Your task to perform on an android device: change the clock display to digital Image 0: 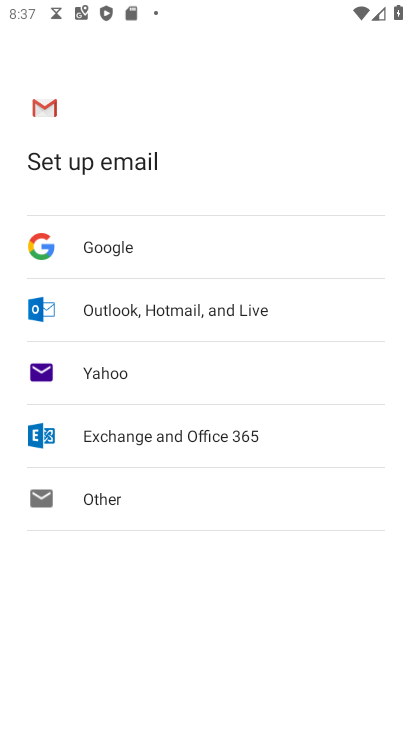
Step 0: press home button
Your task to perform on an android device: change the clock display to digital Image 1: 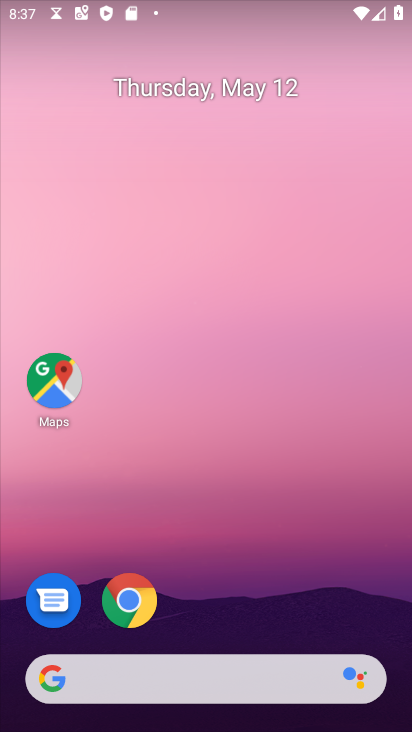
Step 1: drag from (252, 602) to (226, 174)
Your task to perform on an android device: change the clock display to digital Image 2: 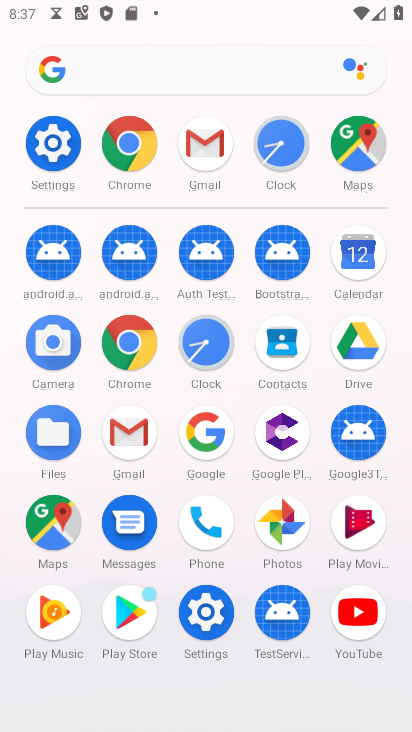
Step 2: click (280, 162)
Your task to perform on an android device: change the clock display to digital Image 3: 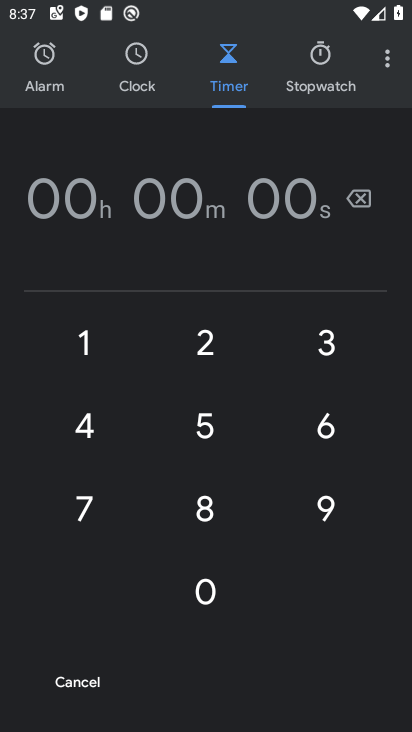
Step 3: click (391, 60)
Your task to perform on an android device: change the clock display to digital Image 4: 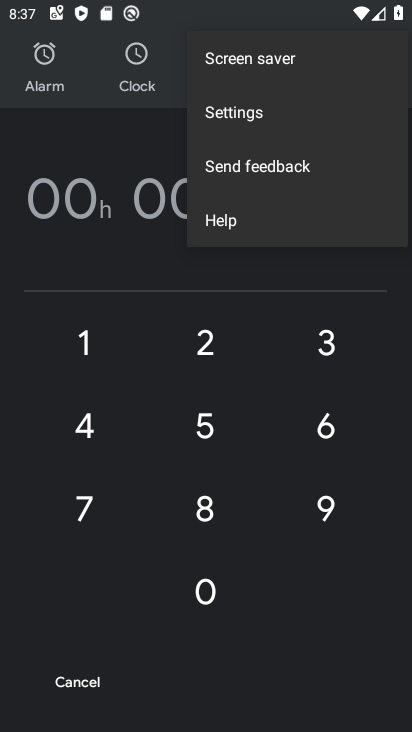
Step 4: click (279, 119)
Your task to perform on an android device: change the clock display to digital Image 5: 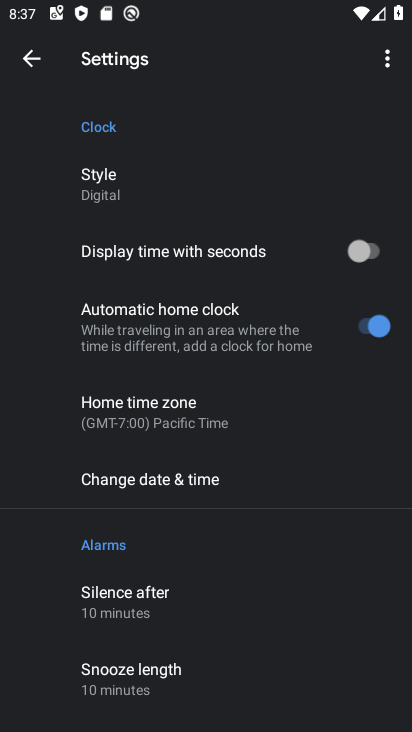
Step 5: click (117, 182)
Your task to perform on an android device: change the clock display to digital Image 6: 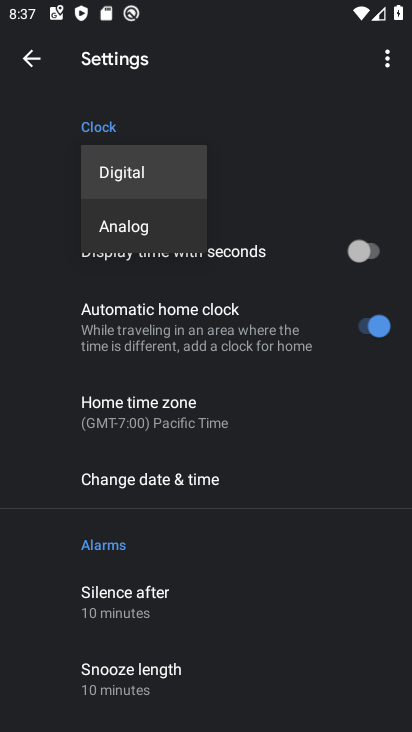
Step 6: click (164, 187)
Your task to perform on an android device: change the clock display to digital Image 7: 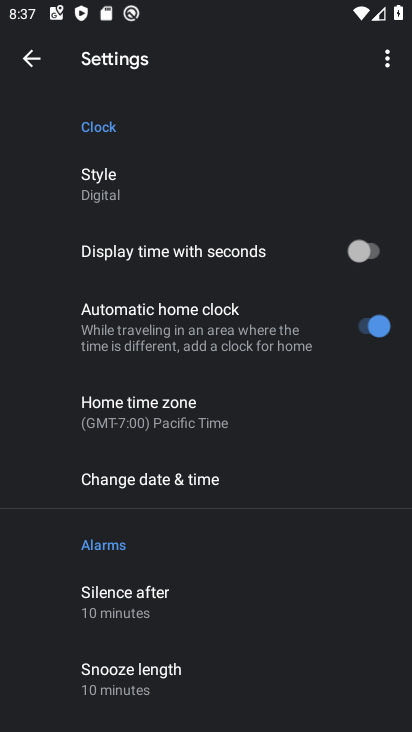
Step 7: task complete